Your task to perform on an android device: Open calendar and show me the second week of next month Image 0: 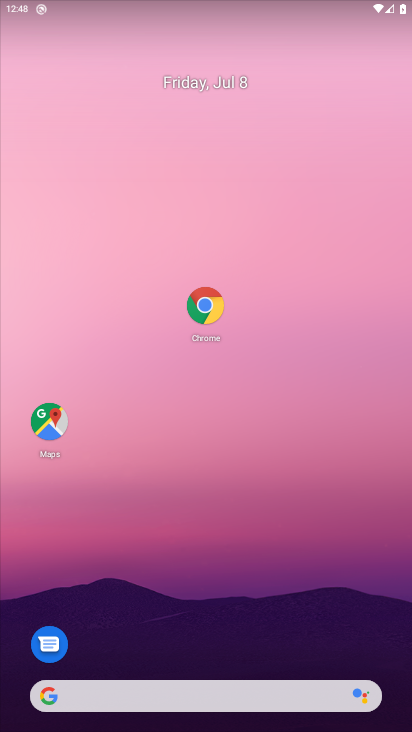
Step 0: press home button
Your task to perform on an android device: Open calendar and show me the second week of next month Image 1: 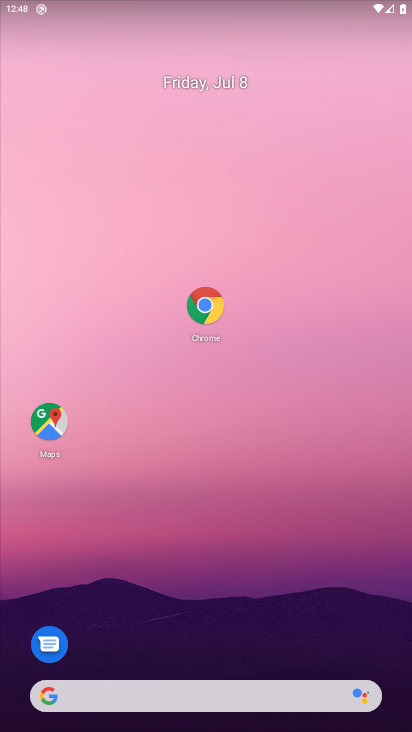
Step 1: drag from (172, 640) to (181, 376)
Your task to perform on an android device: Open calendar and show me the second week of next month Image 2: 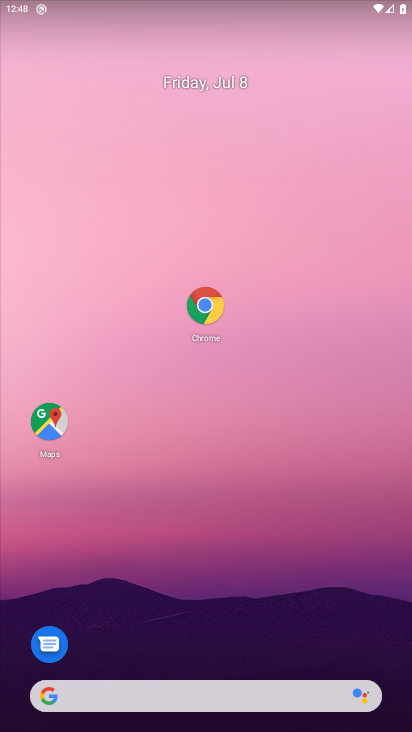
Step 2: drag from (140, 667) to (168, 214)
Your task to perform on an android device: Open calendar and show me the second week of next month Image 3: 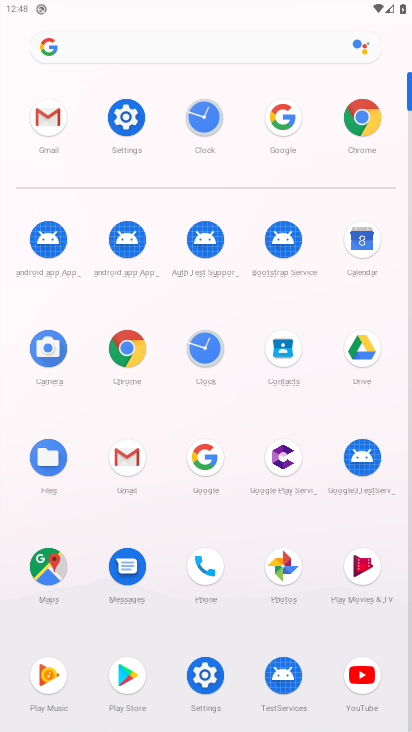
Step 3: click (360, 230)
Your task to perform on an android device: Open calendar and show me the second week of next month Image 4: 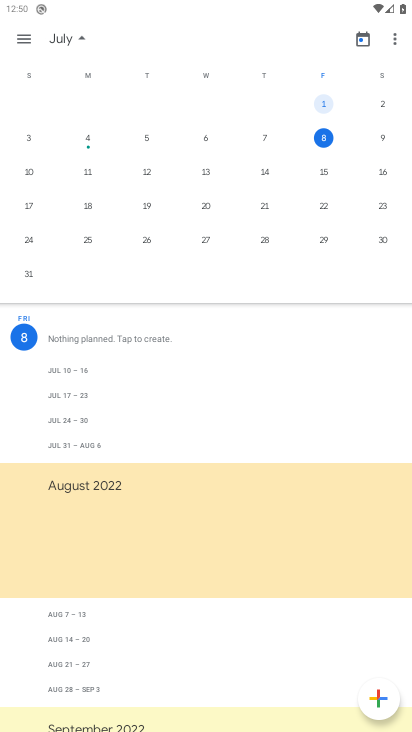
Step 4: drag from (375, 197) to (18, 236)
Your task to perform on an android device: Open calendar and show me the second week of next month Image 5: 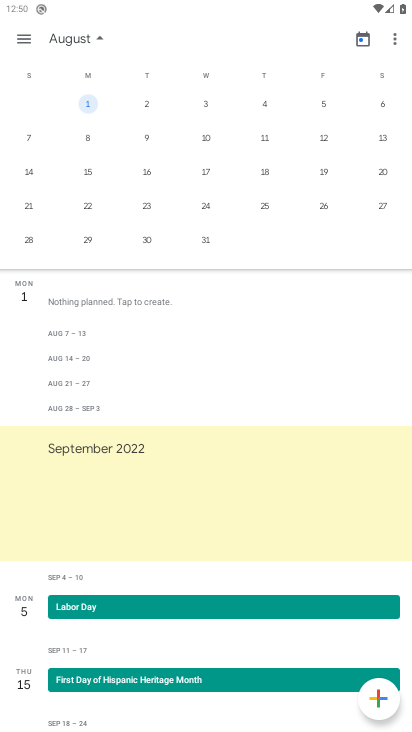
Step 5: click (29, 135)
Your task to perform on an android device: Open calendar and show me the second week of next month Image 6: 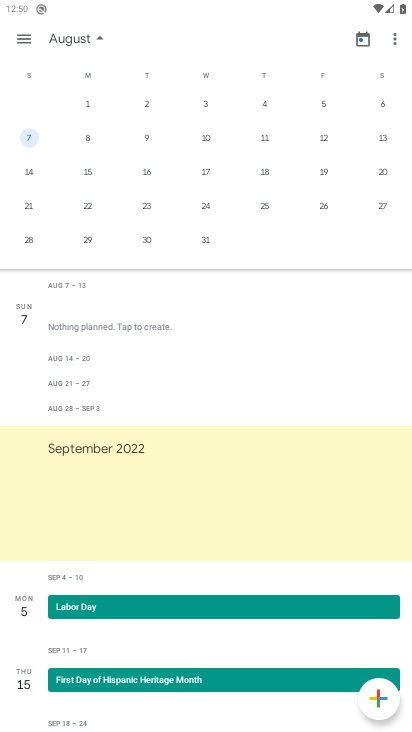
Step 6: task complete